Your task to perform on an android device: turn on priority inbox in the gmail app Image 0: 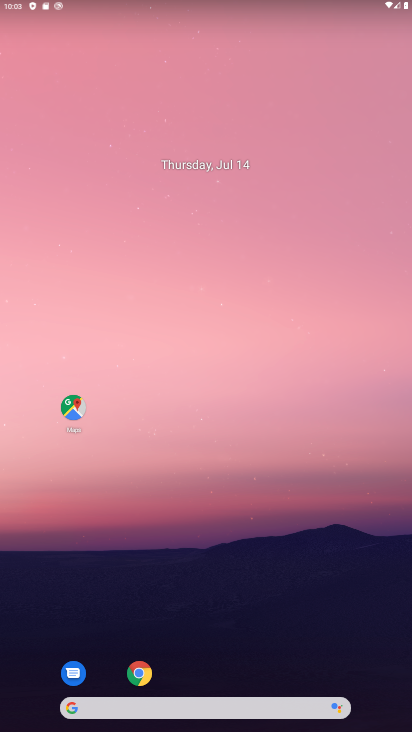
Step 0: drag from (169, 614) to (255, 22)
Your task to perform on an android device: turn on priority inbox in the gmail app Image 1: 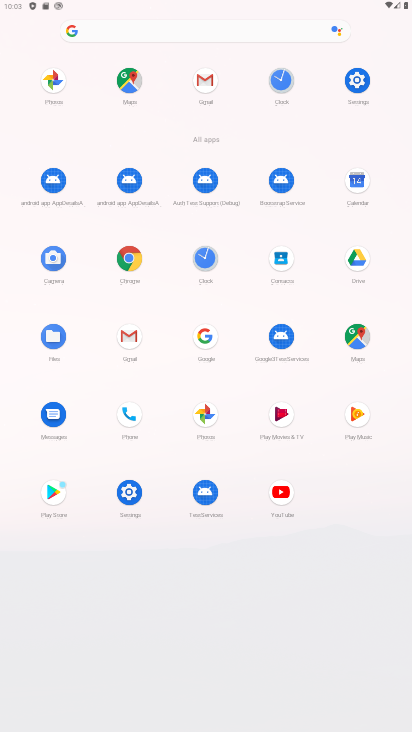
Step 1: click (119, 332)
Your task to perform on an android device: turn on priority inbox in the gmail app Image 2: 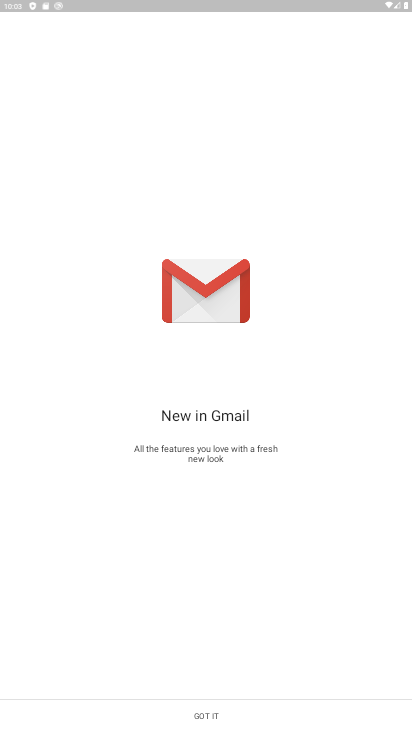
Step 2: click (218, 720)
Your task to perform on an android device: turn on priority inbox in the gmail app Image 3: 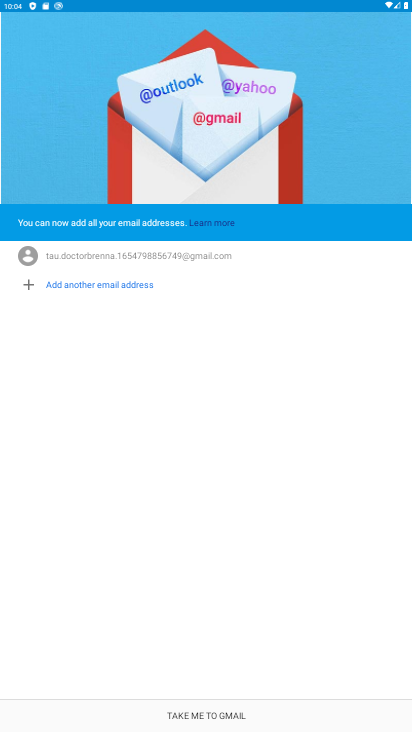
Step 3: click (186, 709)
Your task to perform on an android device: turn on priority inbox in the gmail app Image 4: 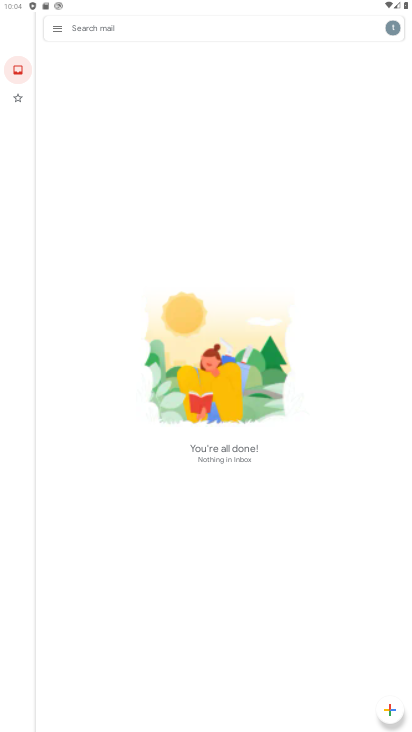
Step 4: click (53, 32)
Your task to perform on an android device: turn on priority inbox in the gmail app Image 5: 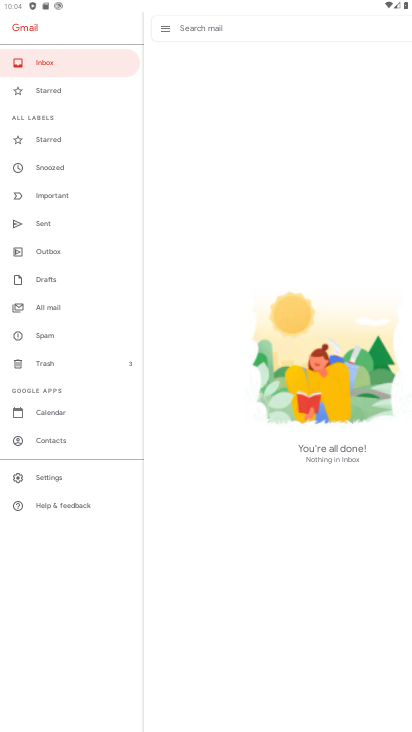
Step 5: click (36, 480)
Your task to perform on an android device: turn on priority inbox in the gmail app Image 6: 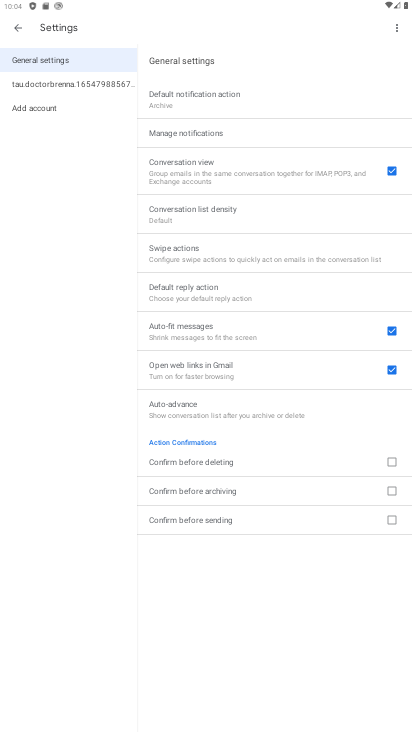
Step 6: click (96, 89)
Your task to perform on an android device: turn on priority inbox in the gmail app Image 7: 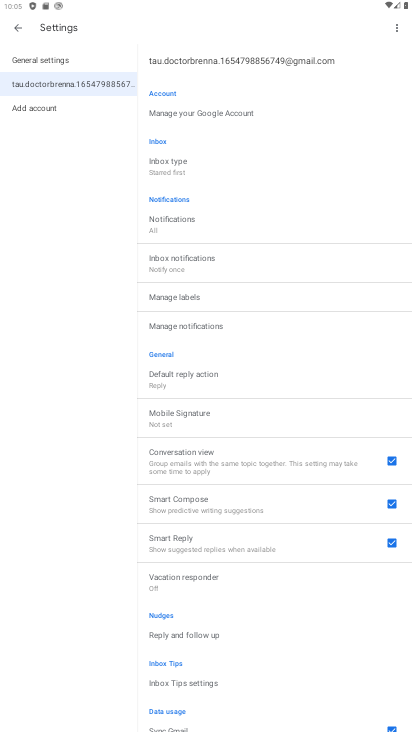
Step 7: click (172, 166)
Your task to perform on an android device: turn on priority inbox in the gmail app Image 8: 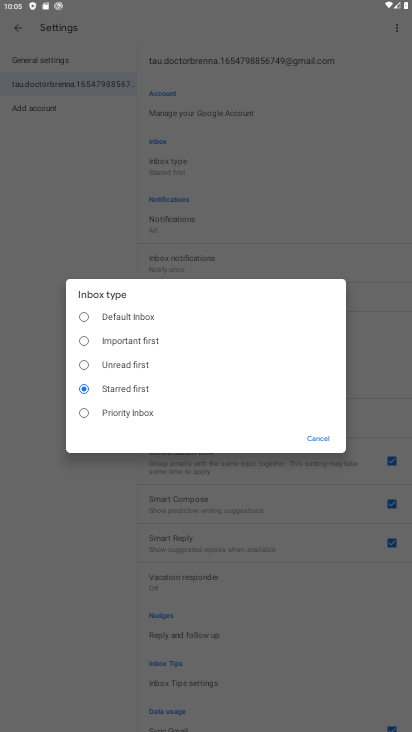
Step 8: click (86, 413)
Your task to perform on an android device: turn on priority inbox in the gmail app Image 9: 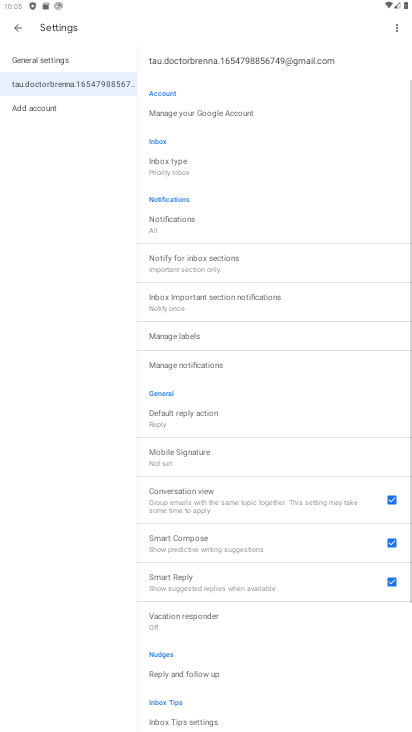
Step 9: task complete